Your task to perform on an android device: turn on priority inbox in the gmail app Image 0: 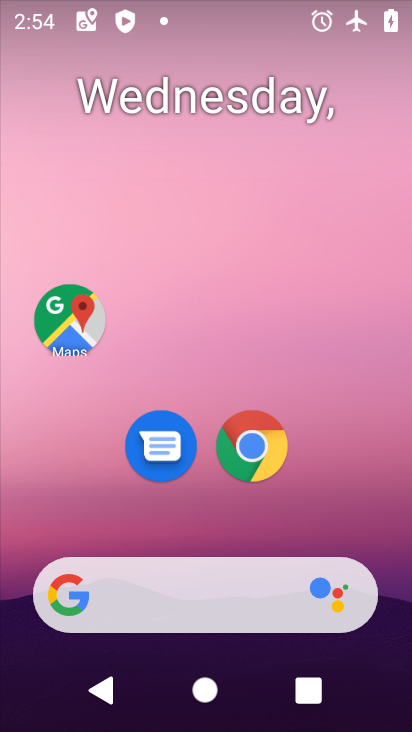
Step 0: drag from (257, 214) to (261, 177)
Your task to perform on an android device: turn on priority inbox in the gmail app Image 1: 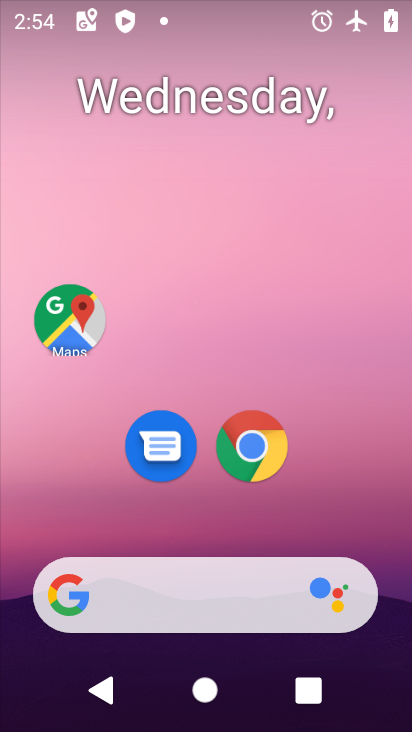
Step 1: drag from (212, 540) to (237, 127)
Your task to perform on an android device: turn on priority inbox in the gmail app Image 2: 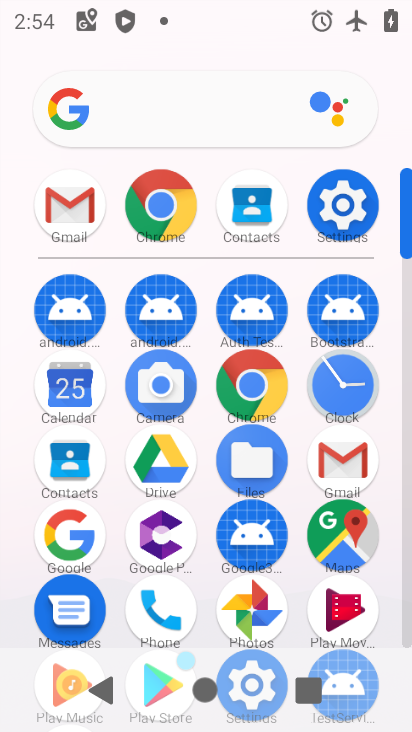
Step 2: click (341, 464)
Your task to perform on an android device: turn on priority inbox in the gmail app Image 3: 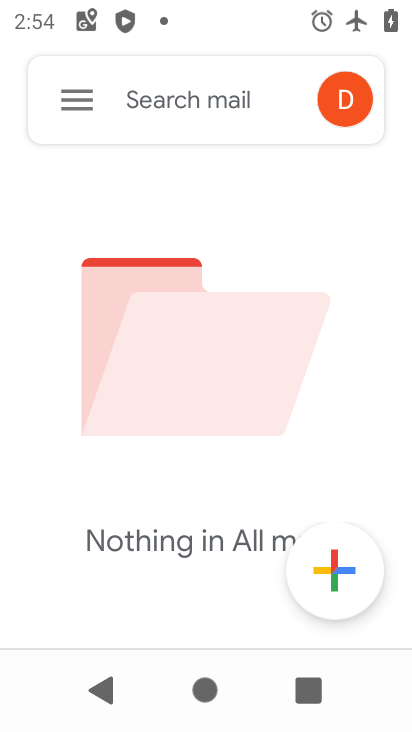
Step 3: click (52, 100)
Your task to perform on an android device: turn on priority inbox in the gmail app Image 4: 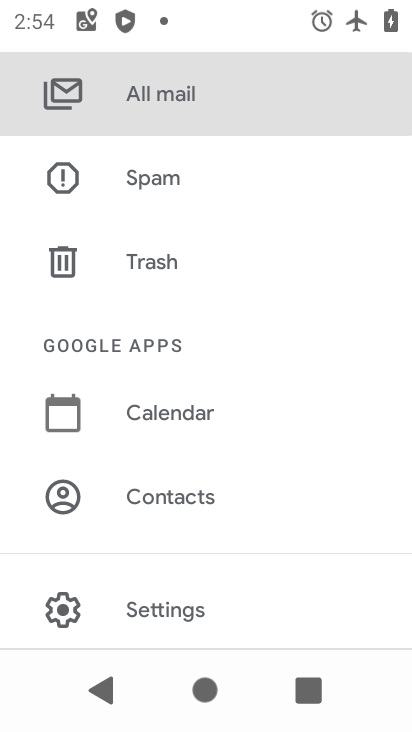
Step 4: click (195, 593)
Your task to perform on an android device: turn on priority inbox in the gmail app Image 5: 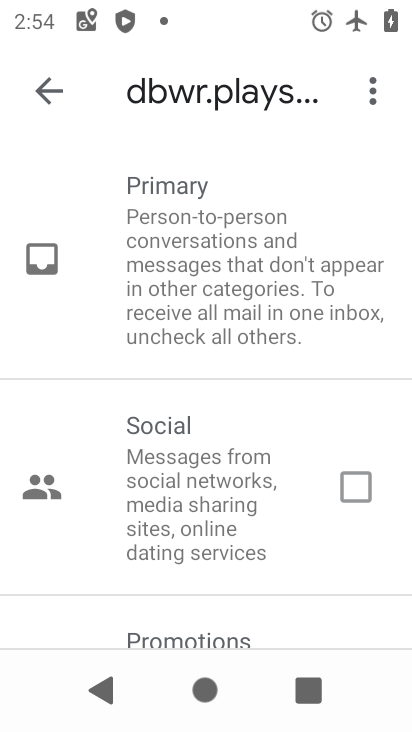
Step 5: click (54, 86)
Your task to perform on an android device: turn on priority inbox in the gmail app Image 6: 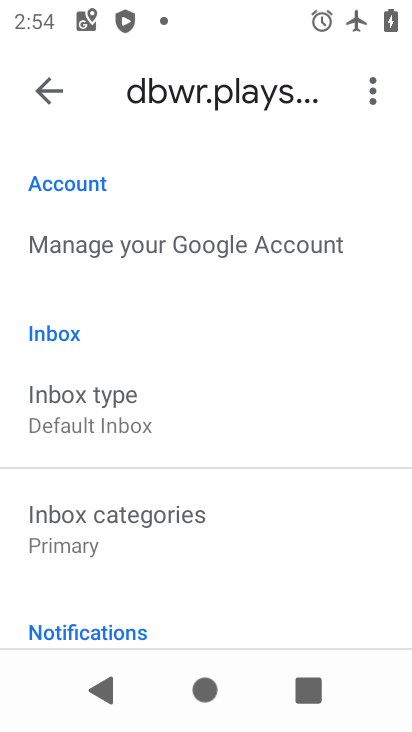
Step 6: click (188, 409)
Your task to perform on an android device: turn on priority inbox in the gmail app Image 7: 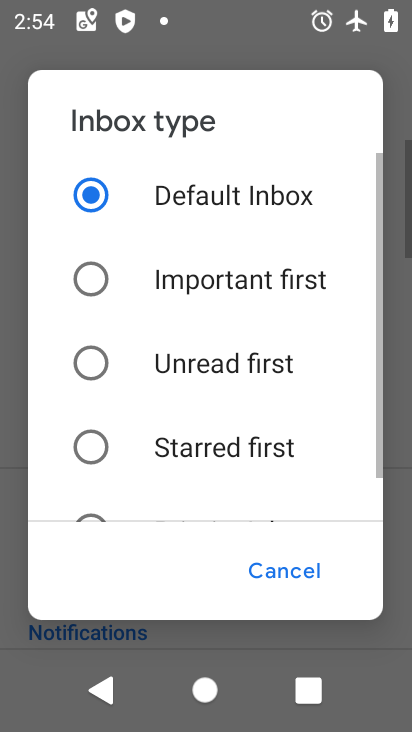
Step 7: drag from (161, 463) to (245, 185)
Your task to perform on an android device: turn on priority inbox in the gmail app Image 8: 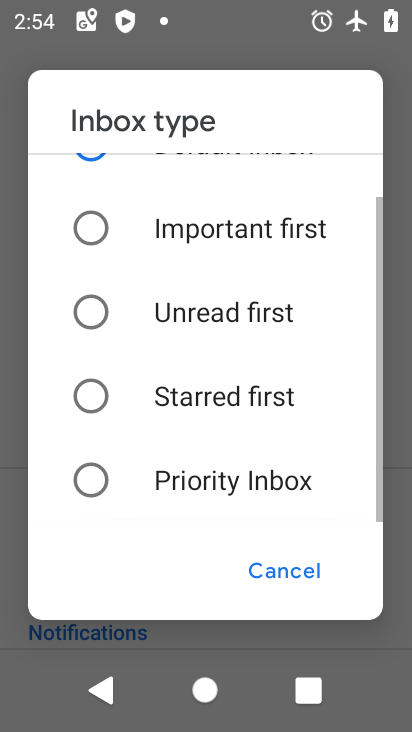
Step 8: click (165, 478)
Your task to perform on an android device: turn on priority inbox in the gmail app Image 9: 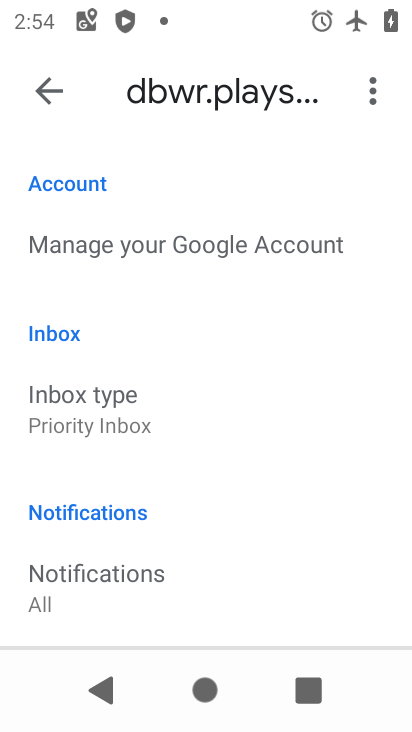
Step 9: task complete